Your task to perform on an android device: allow cookies in the chrome app Image 0: 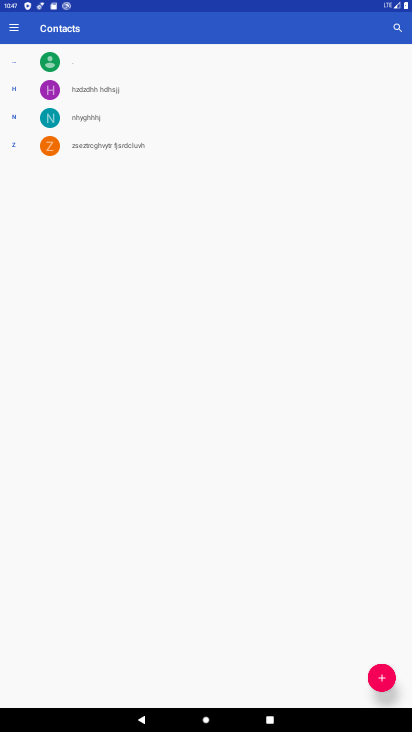
Step 0: press home button
Your task to perform on an android device: allow cookies in the chrome app Image 1: 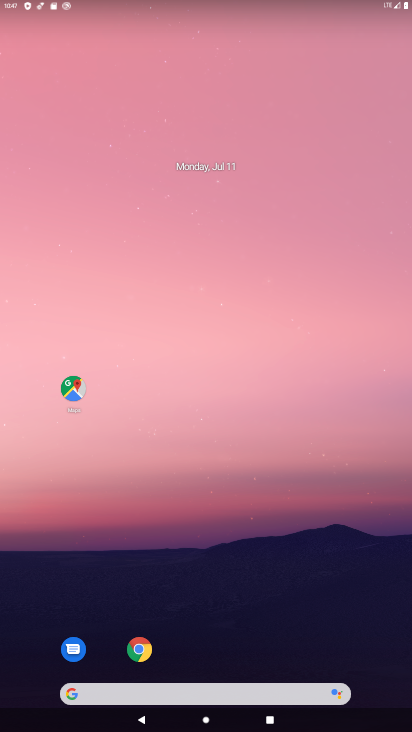
Step 1: drag from (246, 616) to (257, 109)
Your task to perform on an android device: allow cookies in the chrome app Image 2: 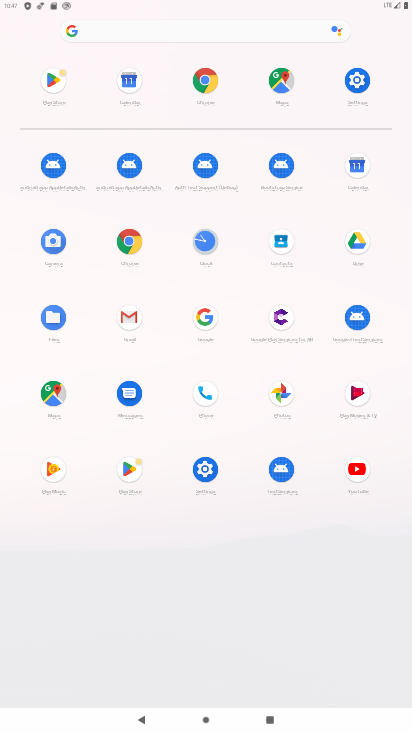
Step 2: click (128, 242)
Your task to perform on an android device: allow cookies in the chrome app Image 3: 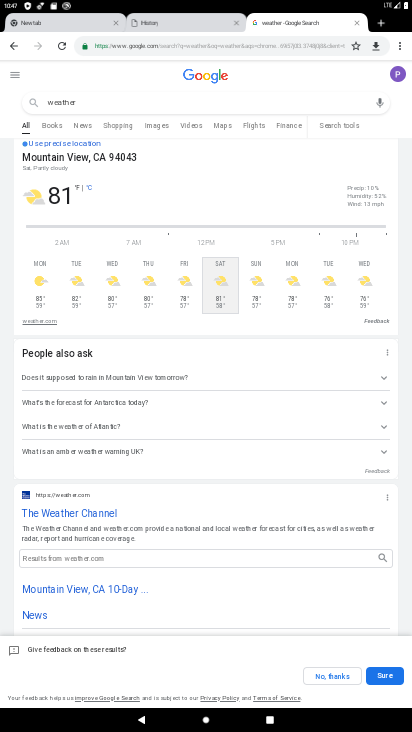
Step 3: drag from (405, 41) to (300, 134)
Your task to perform on an android device: allow cookies in the chrome app Image 4: 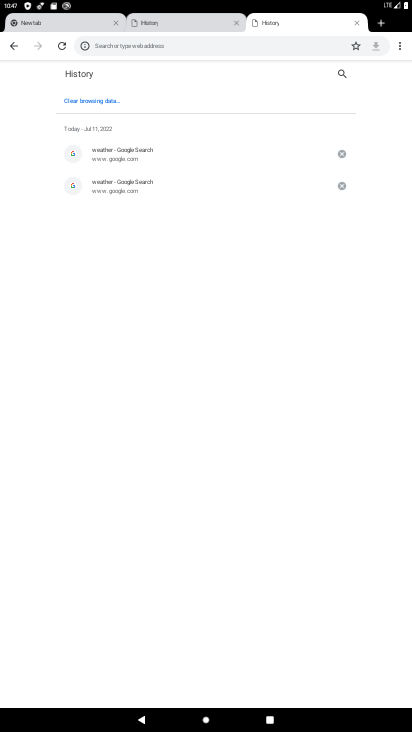
Step 4: click (106, 98)
Your task to perform on an android device: allow cookies in the chrome app Image 5: 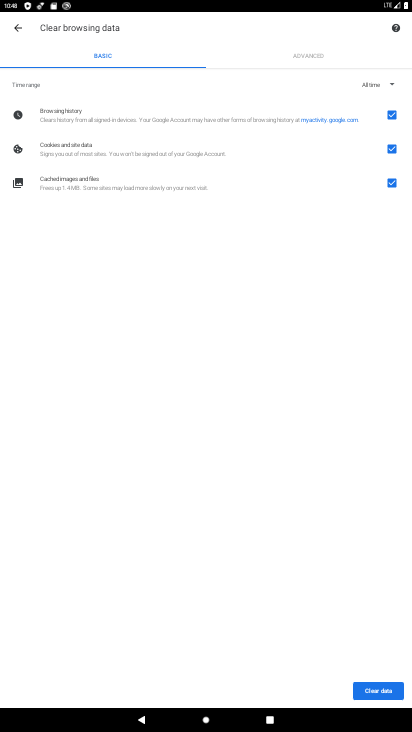
Step 5: click (376, 78)
Your task to perform on an android device: allow cookies in the chrome app Image 6: 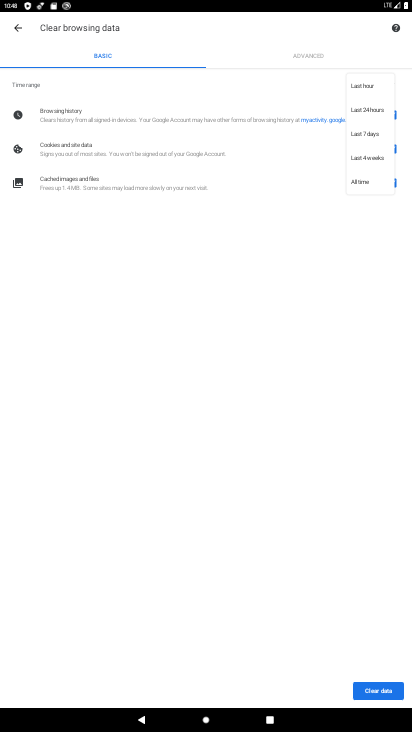
Step 6: click (367, 182)
Your task to perform on an android device: allow cookies in the chrome app Image 7: 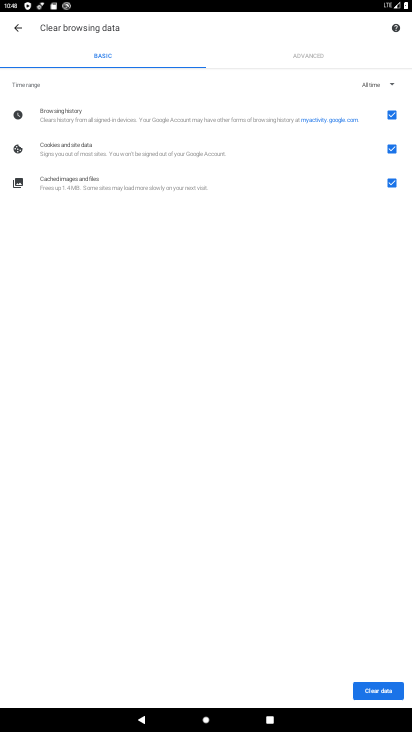
Step 7: click (383, 693)
Your task to perform on an android device: allow cookies in the chrome app Image 8: 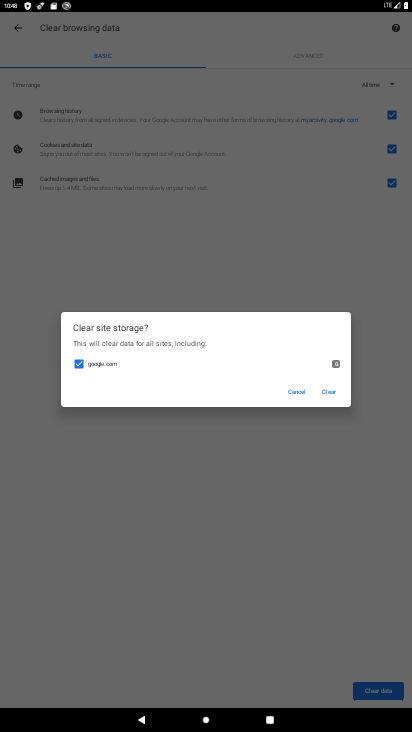
Step 8: click (330, 389)
Your task to perform on an android device: allow cookies in the chrome app Image 9: 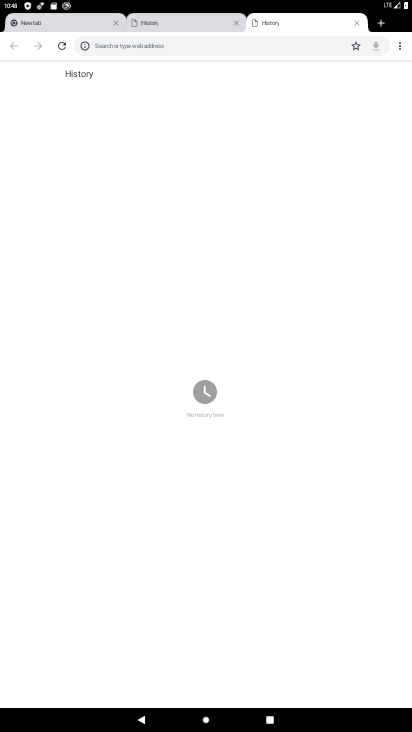
Step 9: task complete